Your task to perform on an android device: open chrome privacy settings Image 0: 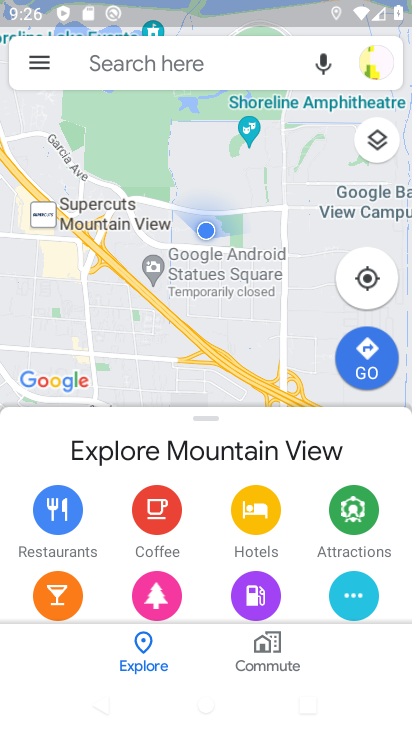
Step 0: press home button
Your task to perform on an android device: open chrome privacy settings Image 1: 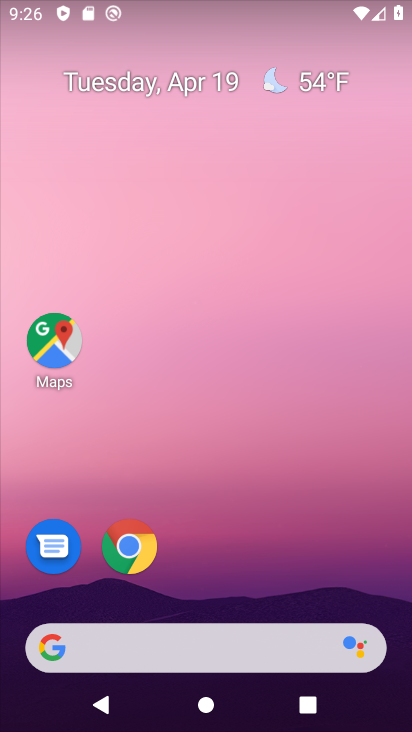
Step 1: click (126, 550)
Your task to perform on an android device: open chrome privacy settings Image 2: 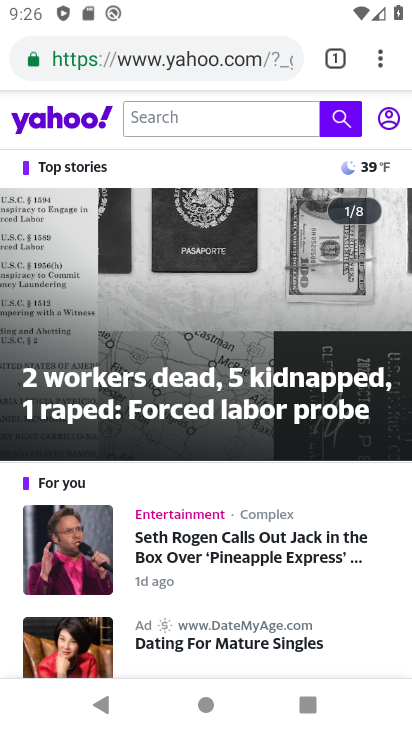
Step 2: drag from (382, 61) to (225, 561)
Your task to perform on an android device: open chrome privacy settings Image 3: 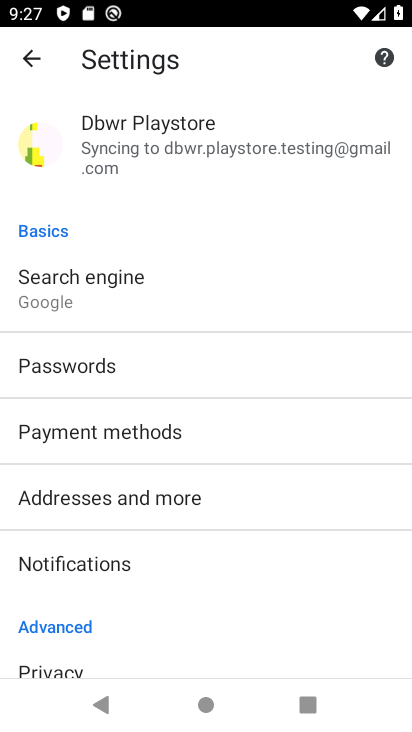
Step 3: drag from (188, 650) to (202, 289)
Your task to perform on an android device: open chrome privacy settings Image 4: 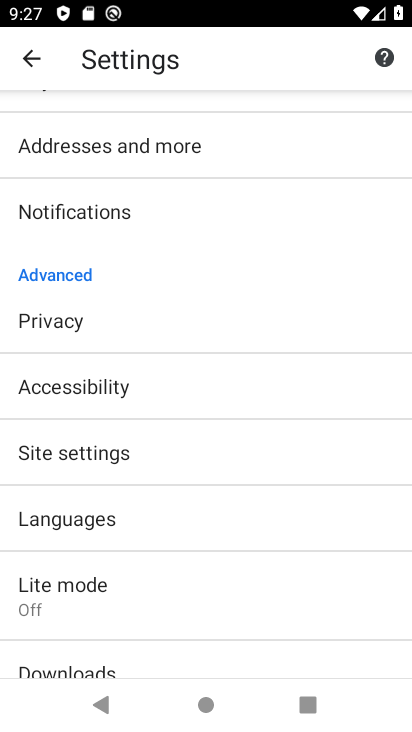
Step 4: click (62, 318)
Your task to perform on an android device: open chrome privacy settings Image 5: 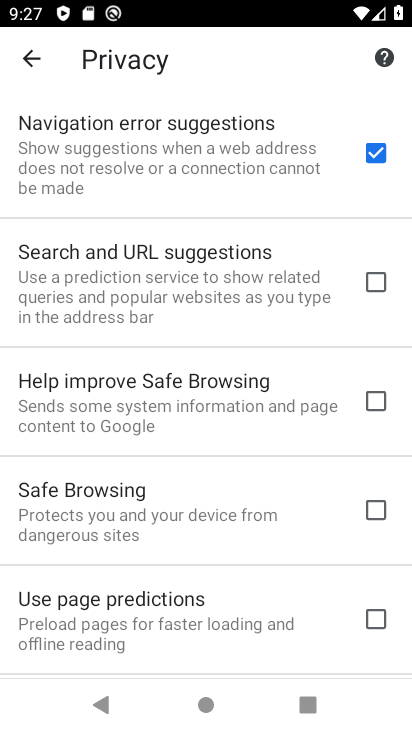
Step 5: task complete